Your task to perform on an android device: Open the calendar and show me this week's events Image 0: 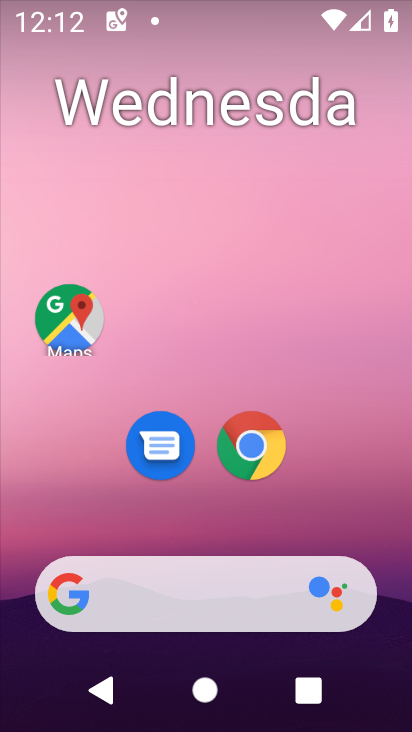
Step 0: drag from (212, 725) to (212, 180)
Your task to perform on an android device: Open the calendar and show me this week's events Image 1: 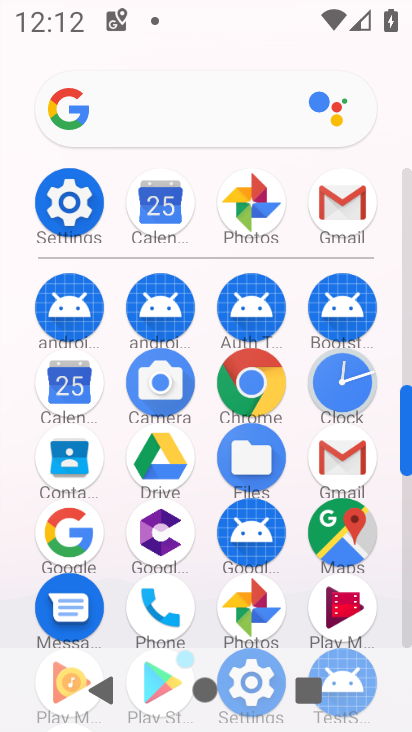
Step 1: click (62, 382)
Your task to perform on an android device: Open the calendar and show me this week's events Image 2: 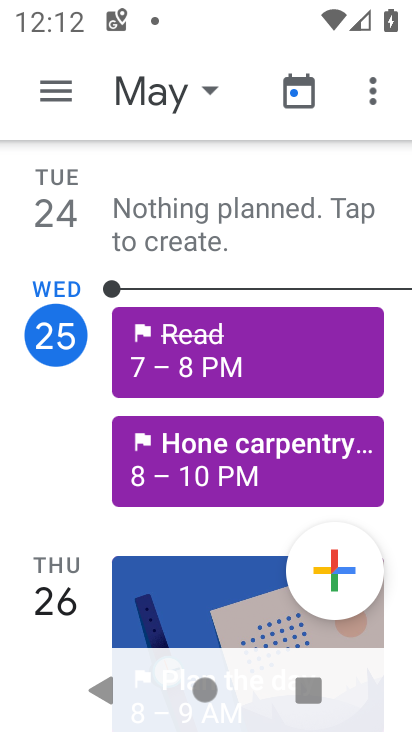
Step 2: click (181, 95)
Your task to perform on an android device: Open the calendar and show me this week's events Image 3: 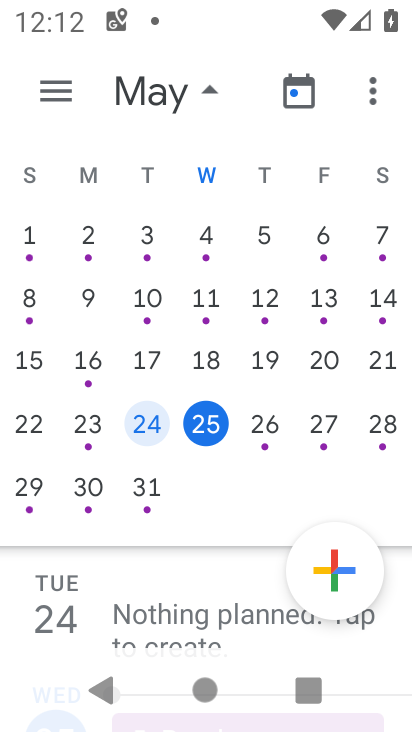
Step 3: click (53, 91)
Your task to perform on an android device: Open the calendar and show me this week's events Image 4: 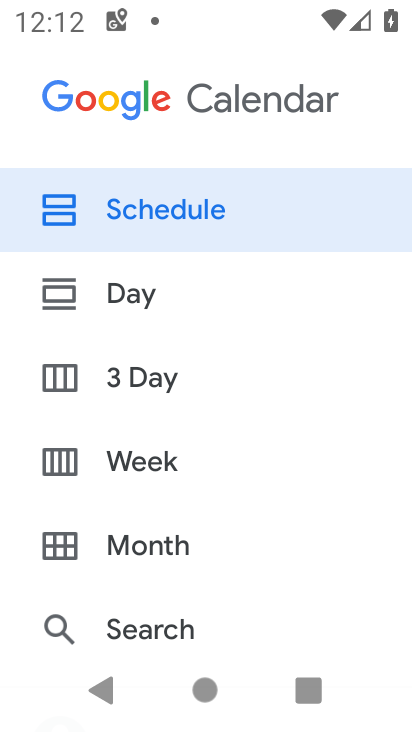
Step 4: click (134, 466)
Your task to perform on an android device: Open the calendar and show me this week's events Image 5: 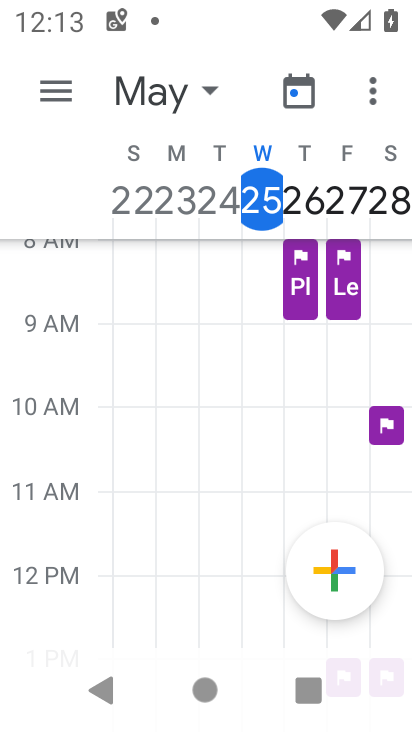
Step 5: task complete